Your task to perform on an android device: change notification settings in the gmail app Image 0: 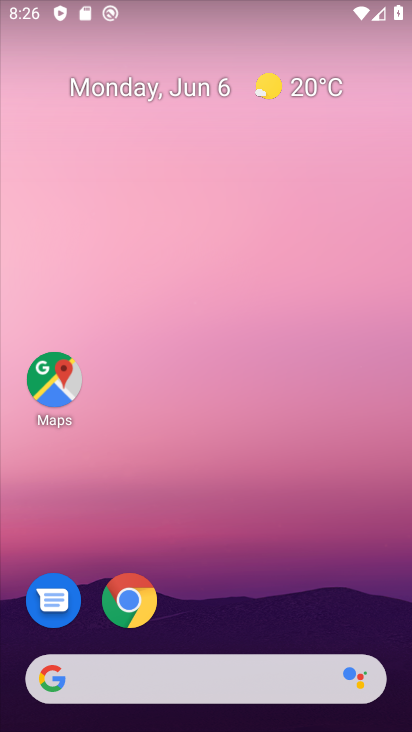
Step 0: drag from (55, 531) to (231, 423)
Your task to perform on an android device: change notification settings in the gmail app Image 1: 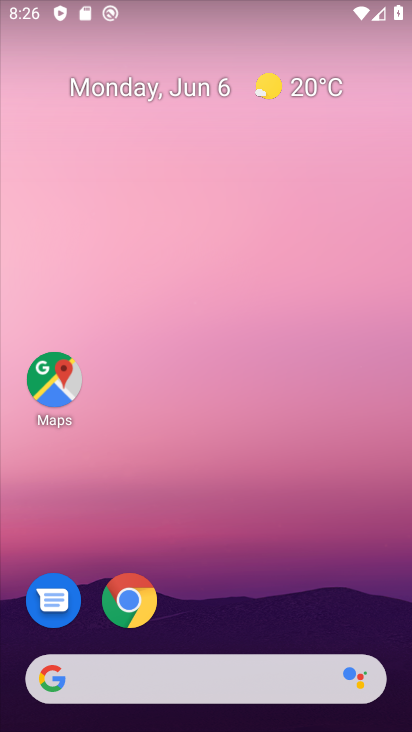
Step 1: drag from (4, 694) to (298, 35)
Your task to perform on an android device: change notification settings in the gmail app Image 2: 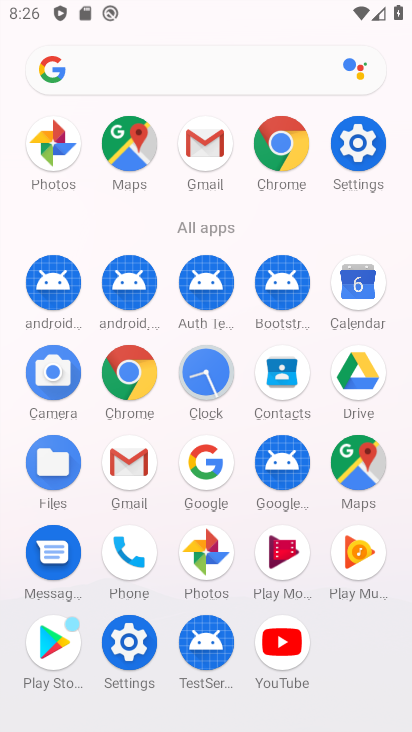
Step 2: click (357, 146)
Your task to perform on an android device: change notification settings in the gmail app Image 3: 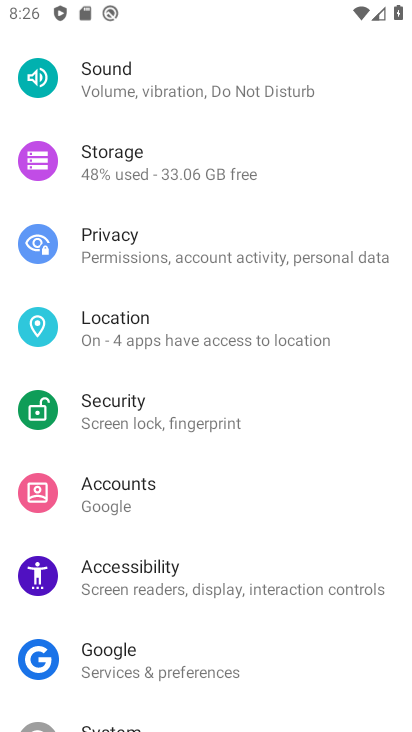
Step 3: drag from (101, 90) to (62, 622)
Your task to perform on an android device: change notification settings in the gmail app Image 4: 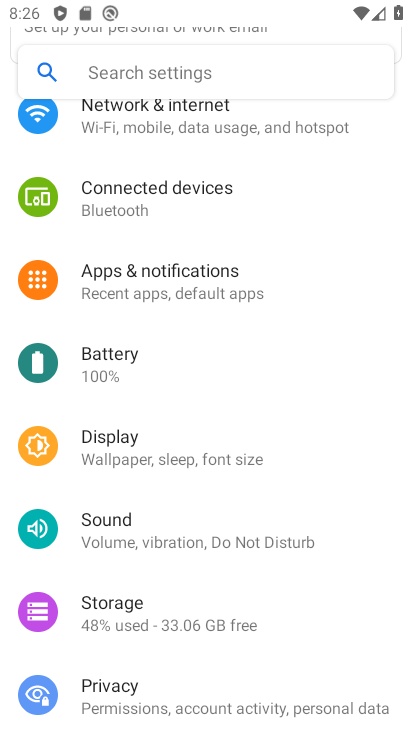
Step 4: click (74, 288)
Your task to perform on an android device: change notification settings in the gmail app Image 5: 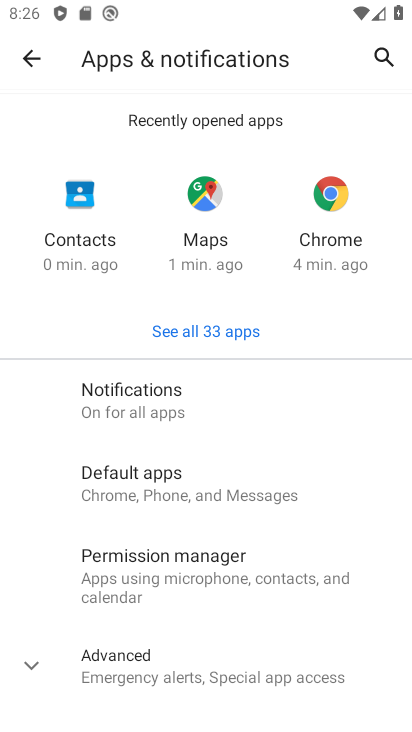
Step 5: press home button
Your task to perform on an android device: change notification settings in the gmail app Image 6: 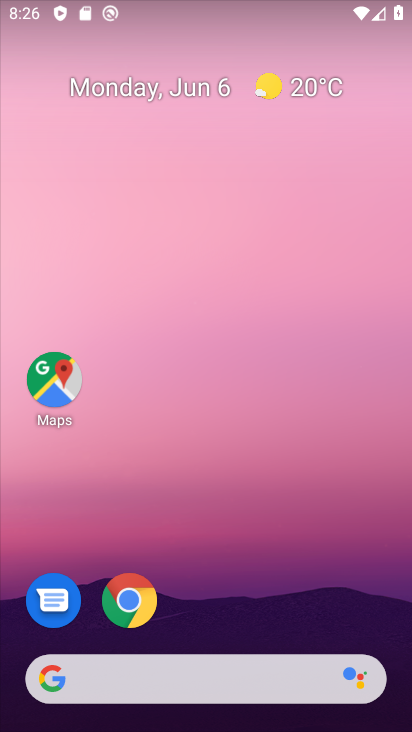
Step 6: drag from (65, 563) to (352, 115)
Your task to perform on an android device: change notification settings in the gmail app Image 7: 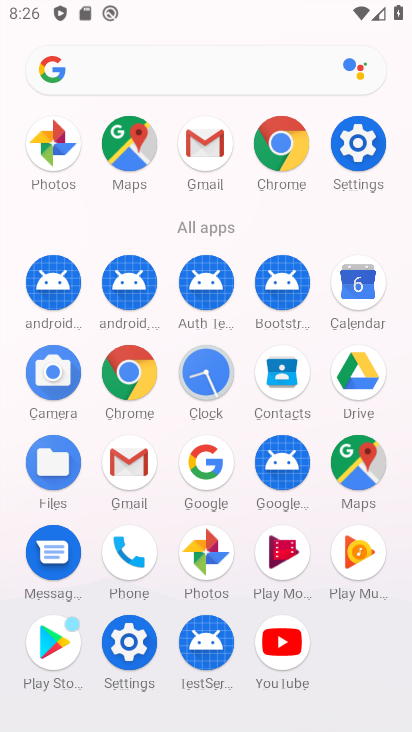
Step 7: click (217, 143)
Your task to perform on an android device: change notification settings in the gmail app Image 8: 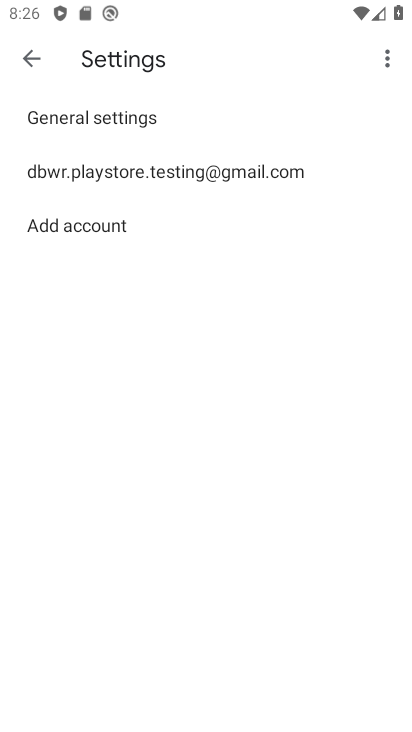
Step 8: click (172, 176)
Your task to perform on an android device: change notification settings in the gmail app Image 9: 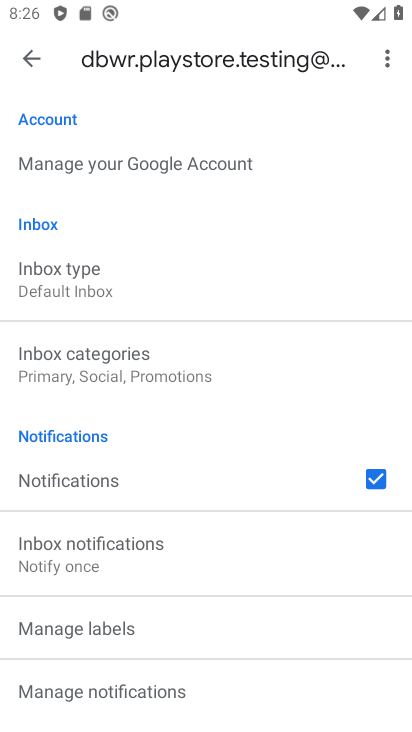
Step 9: click (27, 690)
Your task to perform on an android device: change notification settings in the gmail app Image 10: 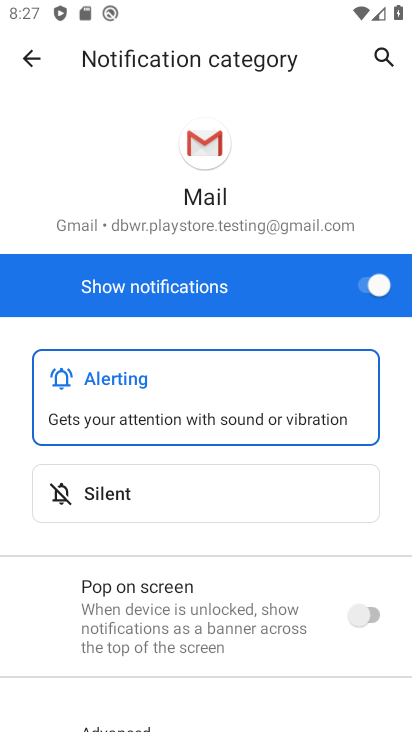
Step 10: click (371, 293)
Your task to perform on an android device: change notification settings in the gmail app Image 11: 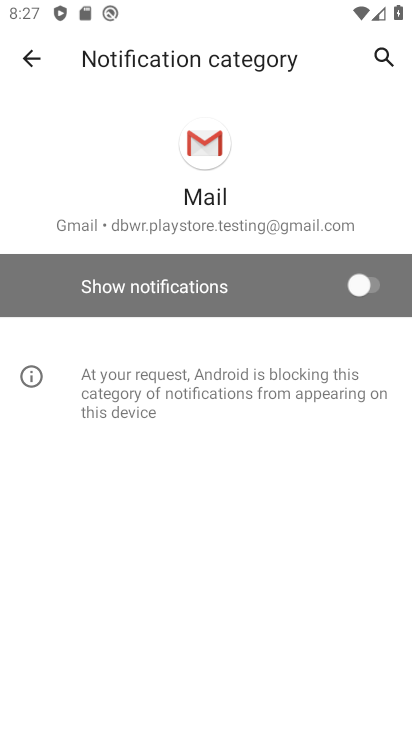
Step 11: task complete